Your task to perform on an android device: Open Google Maps Image 0: 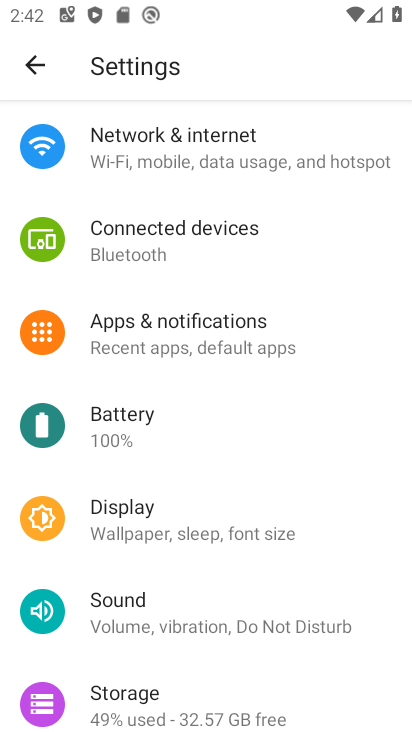
Step 0: press home button
Your task to perform on an android device: Open Google Maps Image 1: 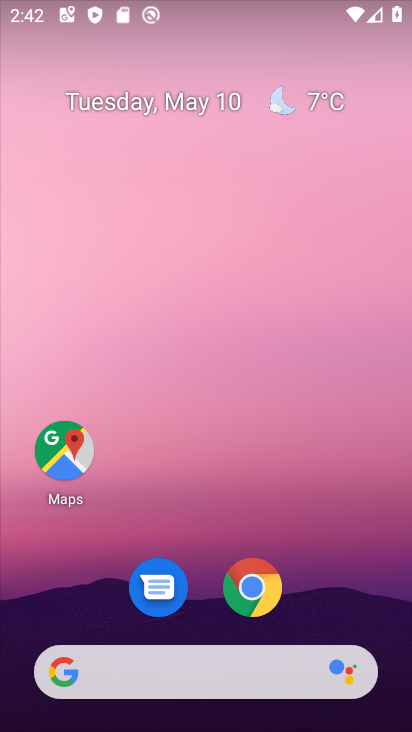
Step 1: click (69, 460)
Your task to perform on an android device: Open Google Maps Image 2: 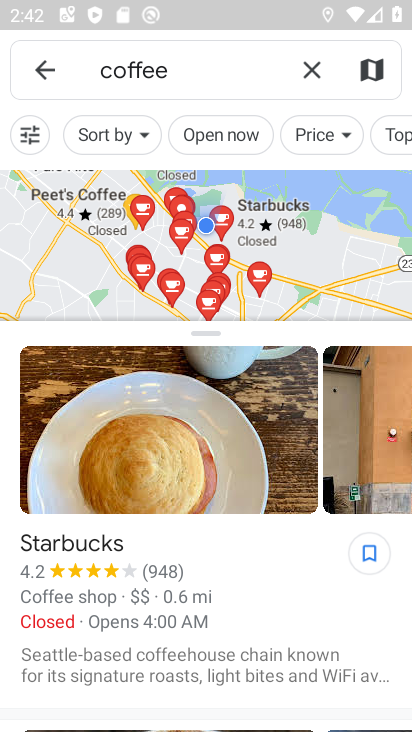
Step 2: task complete